Your task to perform on an android device: set an alarm Image 0: 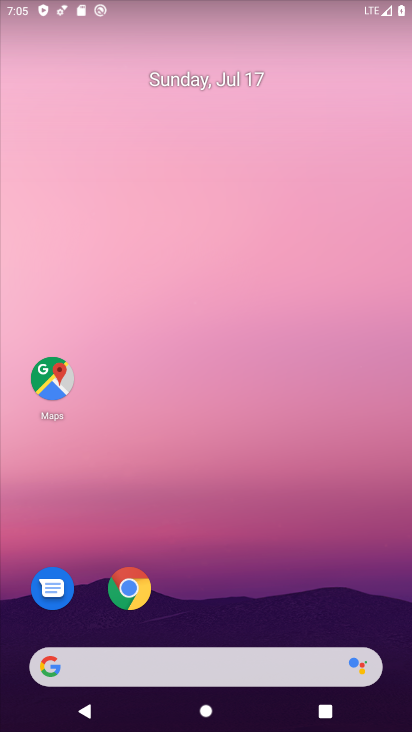
Step 0: drag from (353, 621) to (208, 39)
Your task to perform on an android device: set an alarm Image 1: 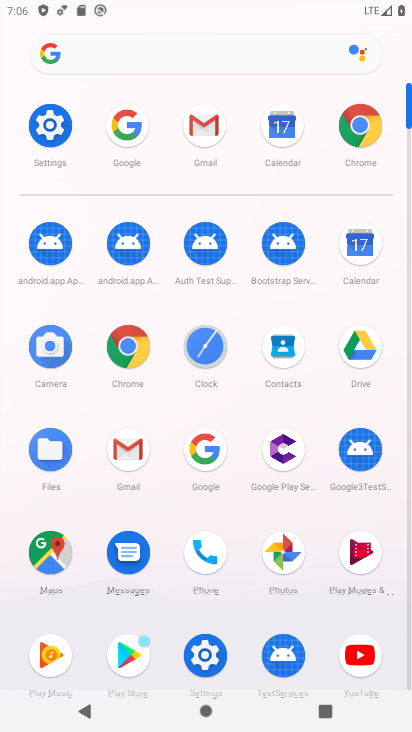
Step 1: click (212, 357)
Your task to perform on an android device: set an alarm Image 2: 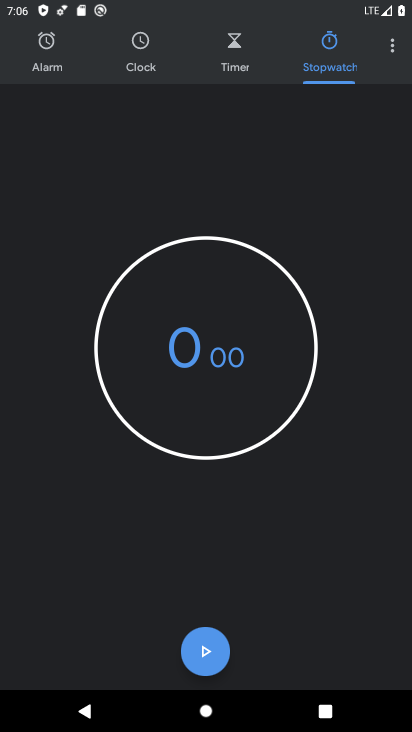
Step 2: click (43, 41)
Your task to perform on an android device: set an alarm Image 3: 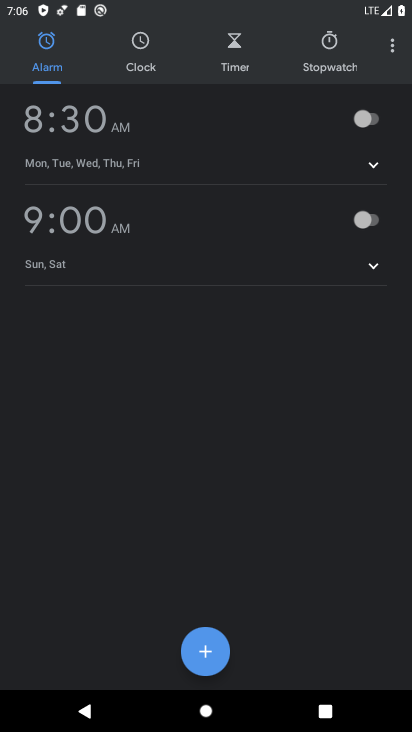
Step 3: click (388, 91)
Your task to perform on an android device: set an alarm Image 4: 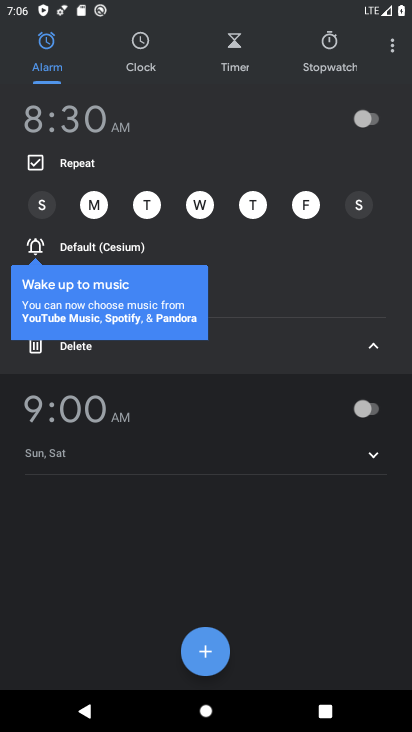
Step 4: click (376, 121)
Your task to perform on an android device: set an alarm Image 5: 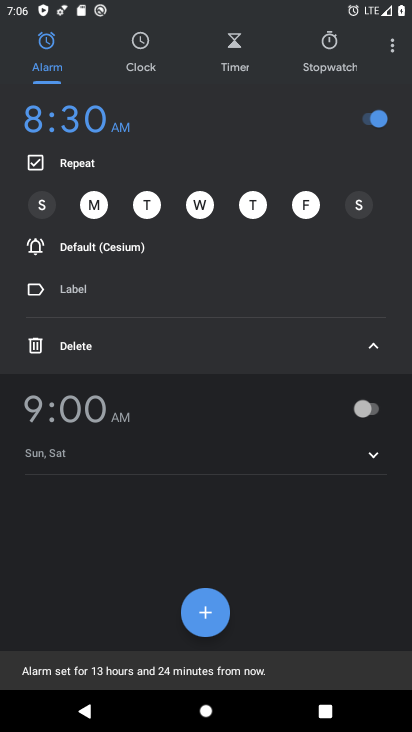
Step 5: task complete